Your task to perform on an android device: star an email in the gmail app Image 0: 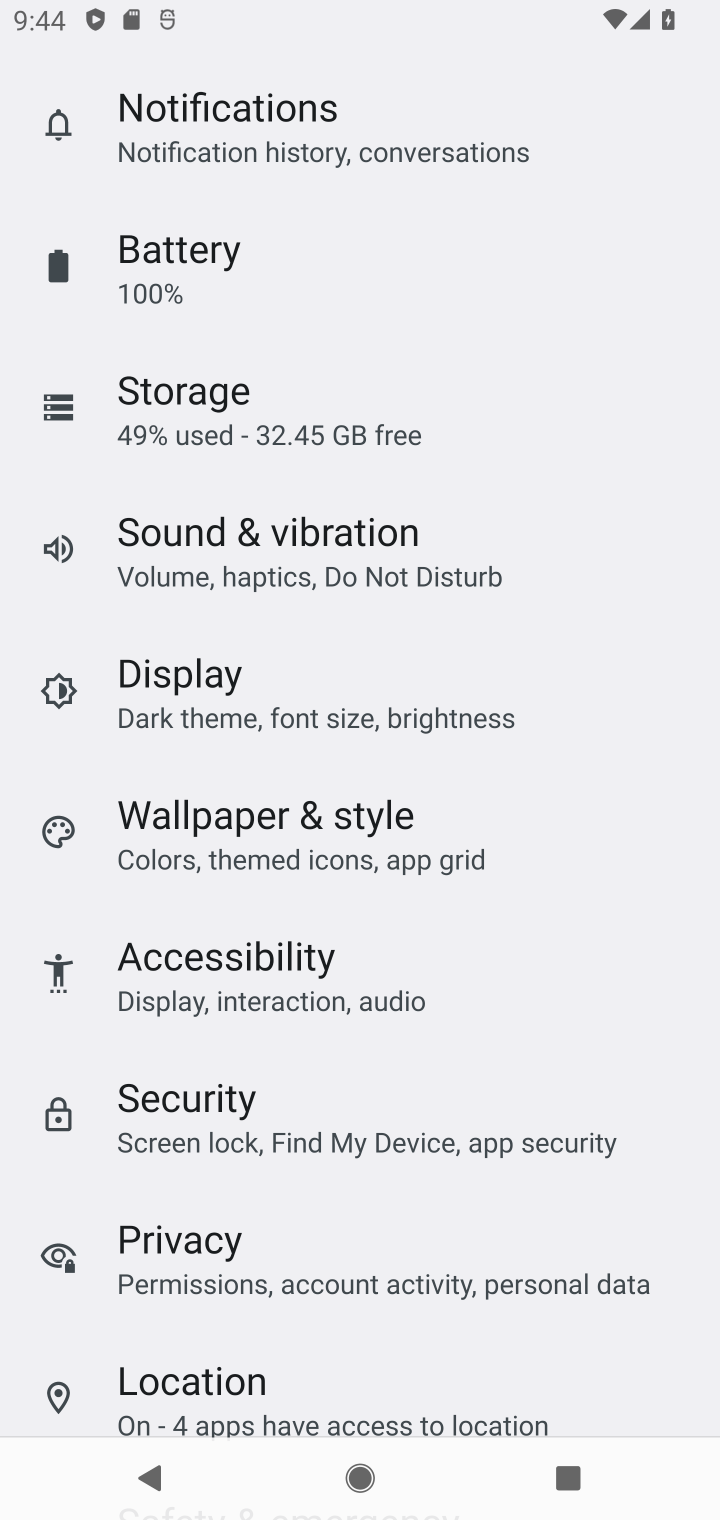
Step 0: press home button
Your task to perform on an android device: star an email in the gmail app Image 1: 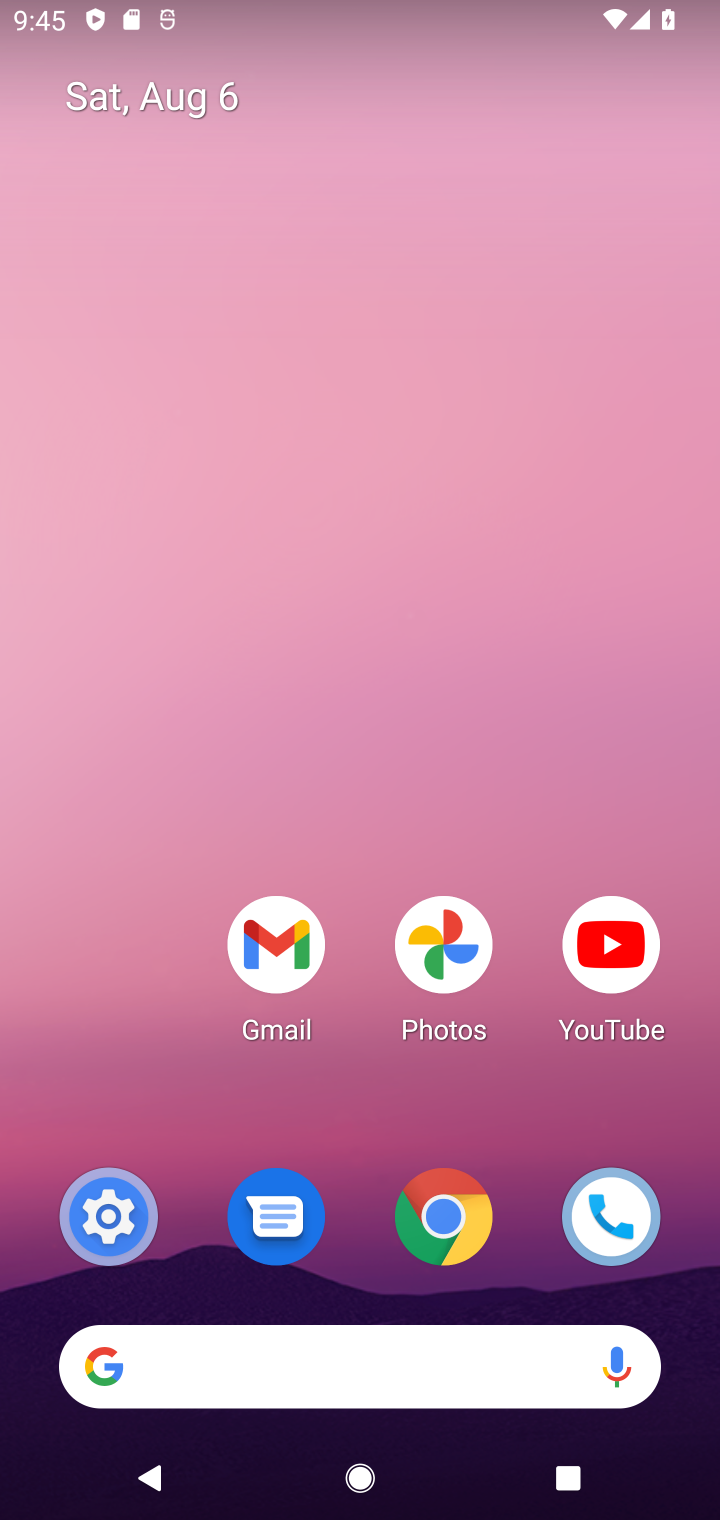
Step 1: click (263, 960)
Your task to perform on an android device: star an email in the gmail app Image 2: 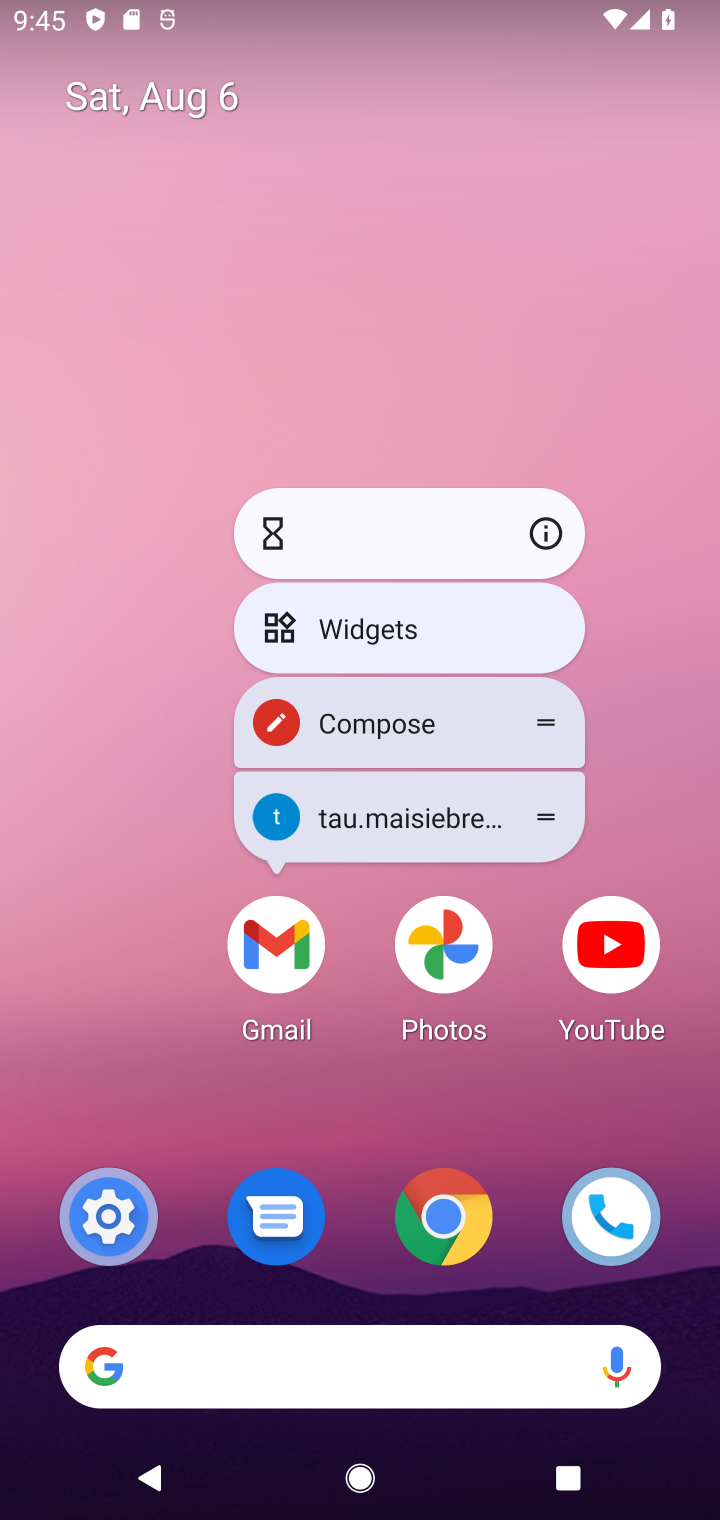
Step 2: click (256, 968)
Your task to perform on an android device: star an email in the gmail app Image 3: 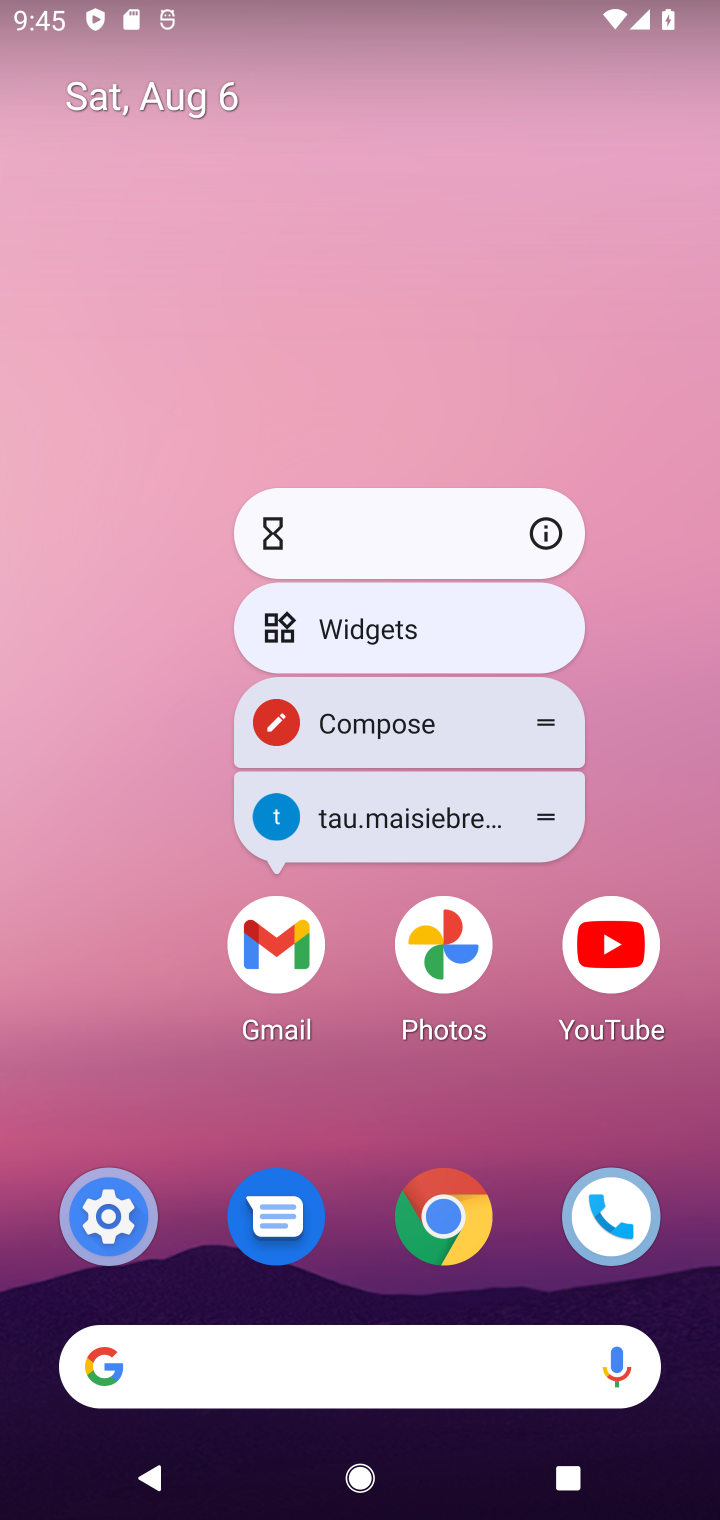
Step 3: click (301, 928)
Your task to perform on an android device: star an email in the gmail app Image 4: 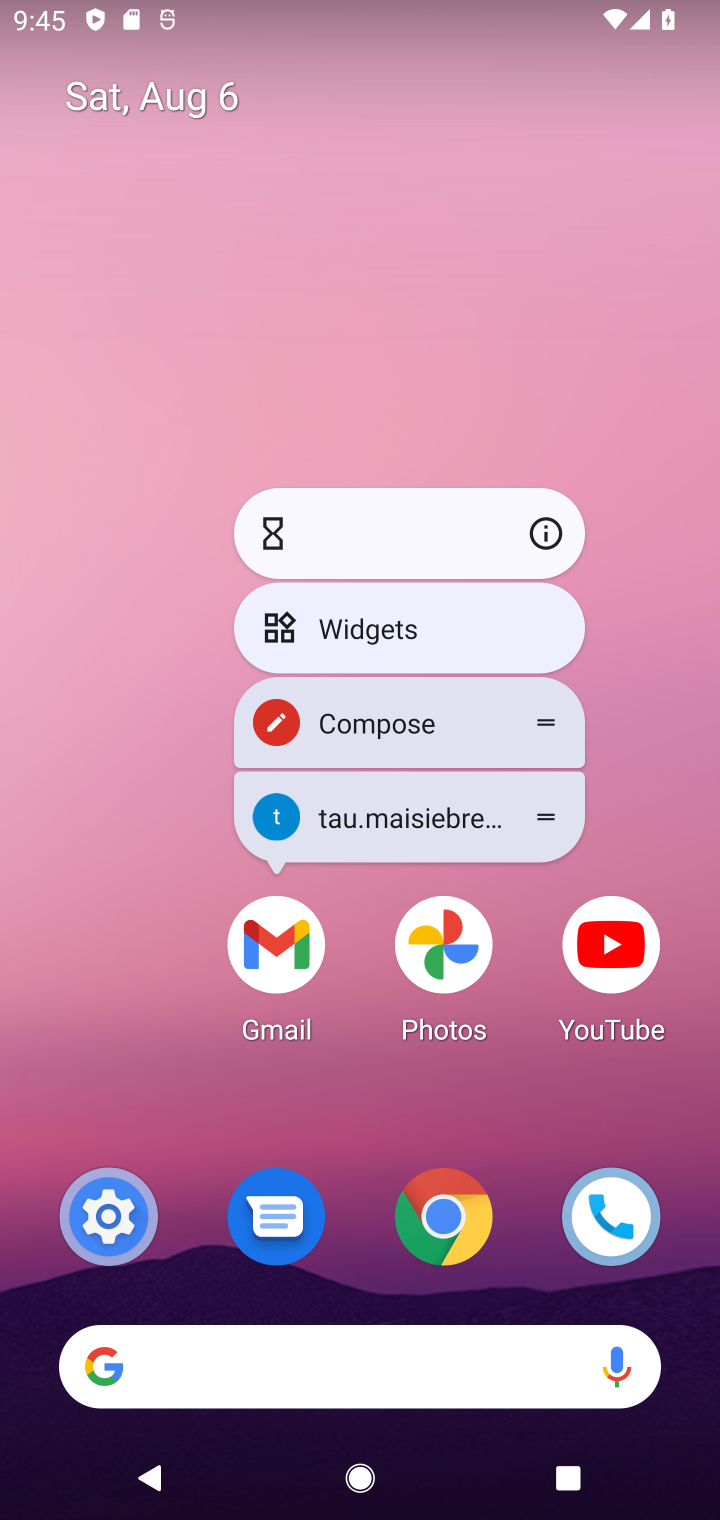
Step 4: click (302, 990)
Your task to perform on an android device: star an email in the gmail app Image 5: 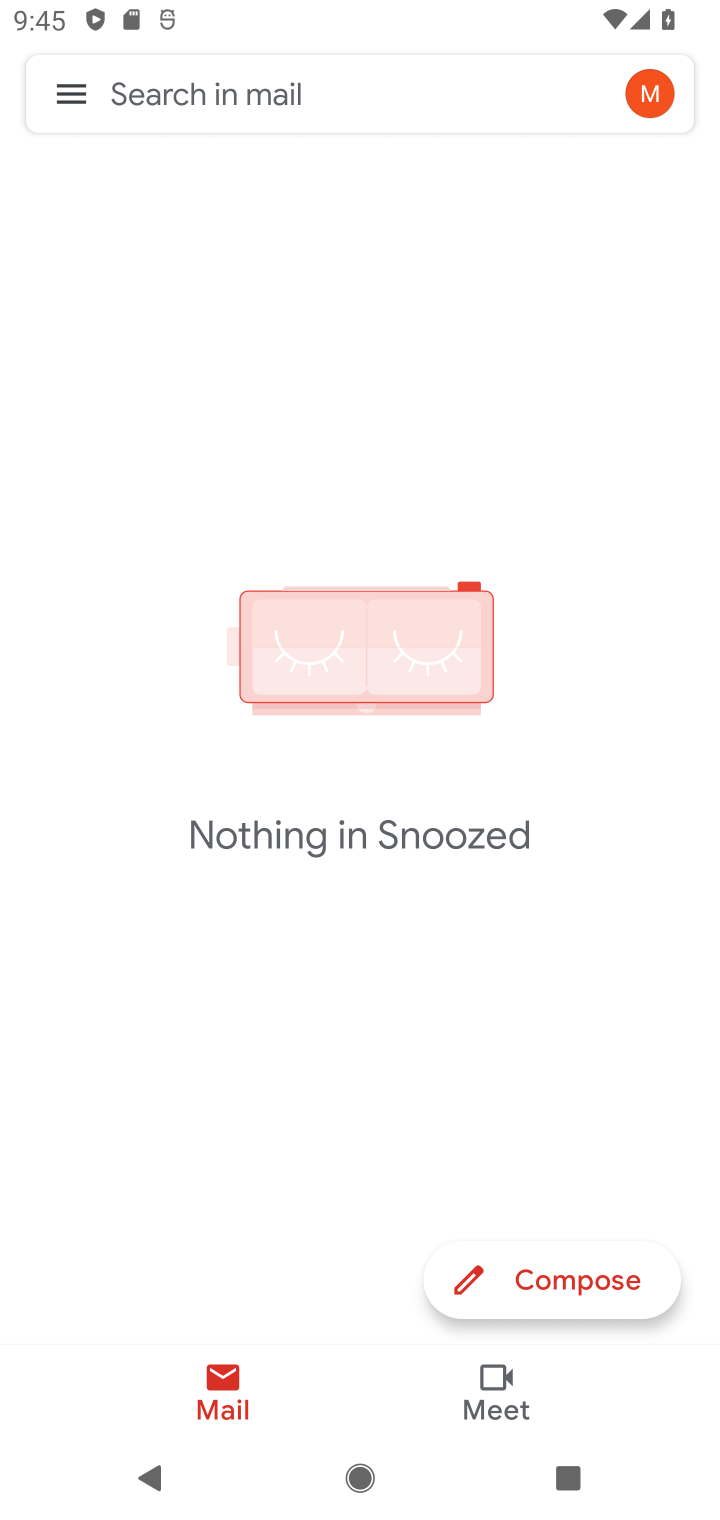
Step 5: click (65, 90)
Your task to perform on an android device: star an email in the gmail app Image 6: 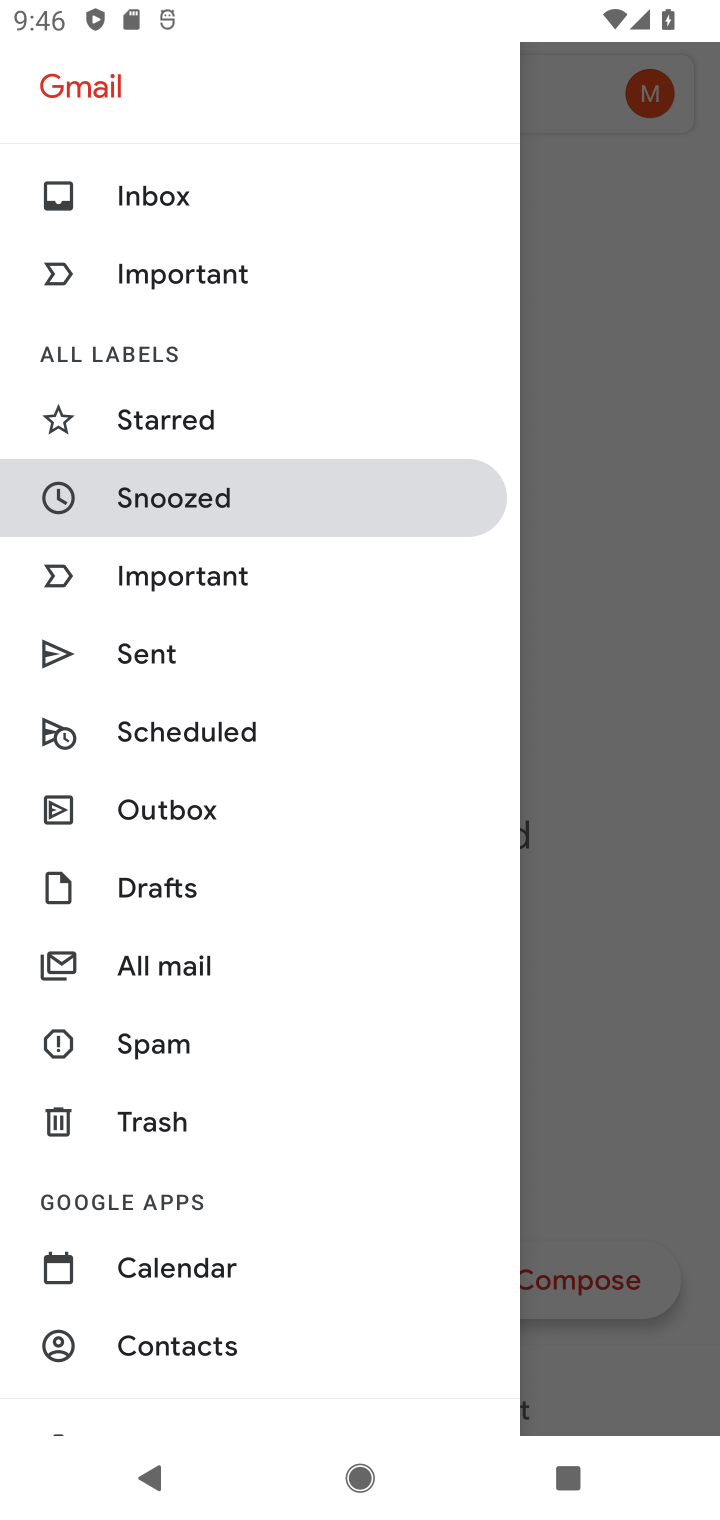
Step 6: click (606, 821)
Your task to perform on an android device: star an email in the gmail app Image 7: 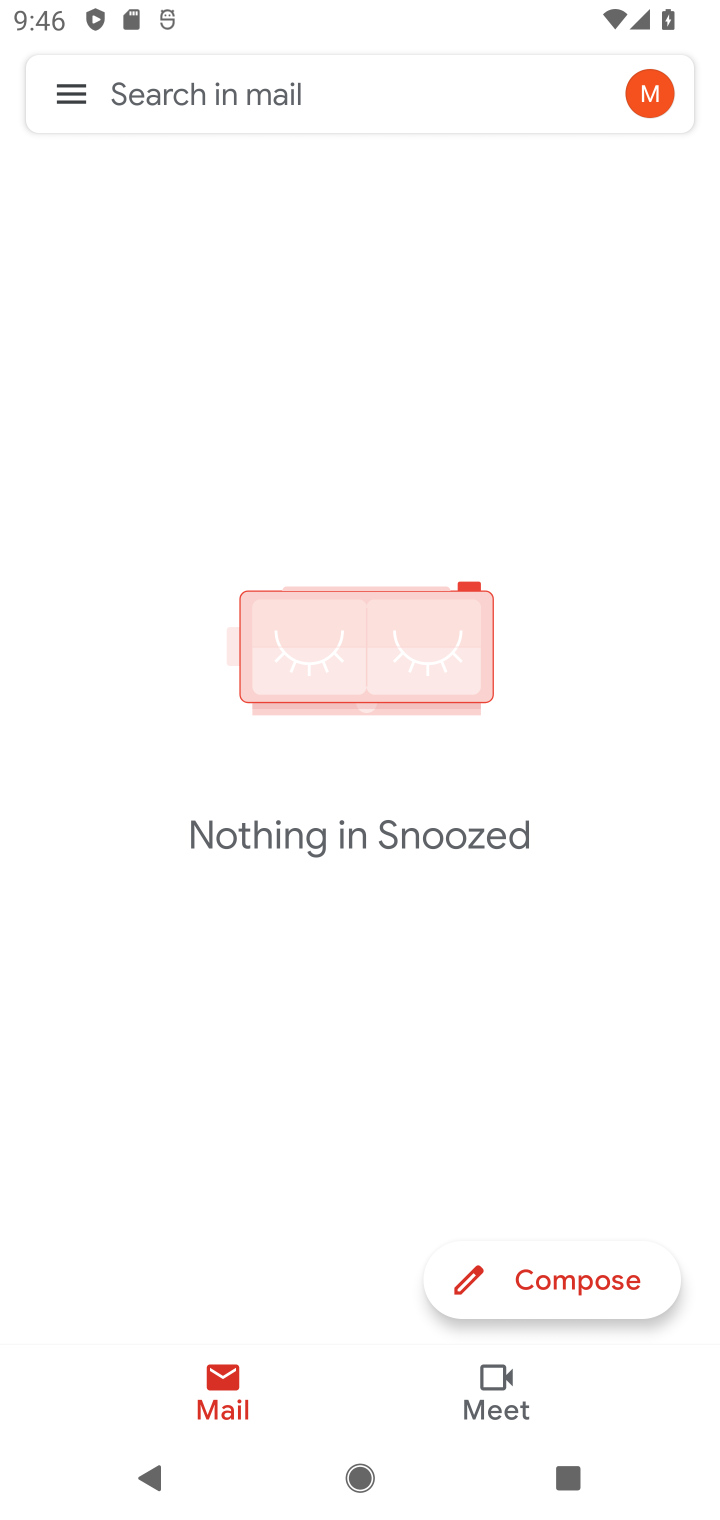
Step 7: click (60, 100)
Your task to perform on an android device: star an email in the gmail app Image 8: 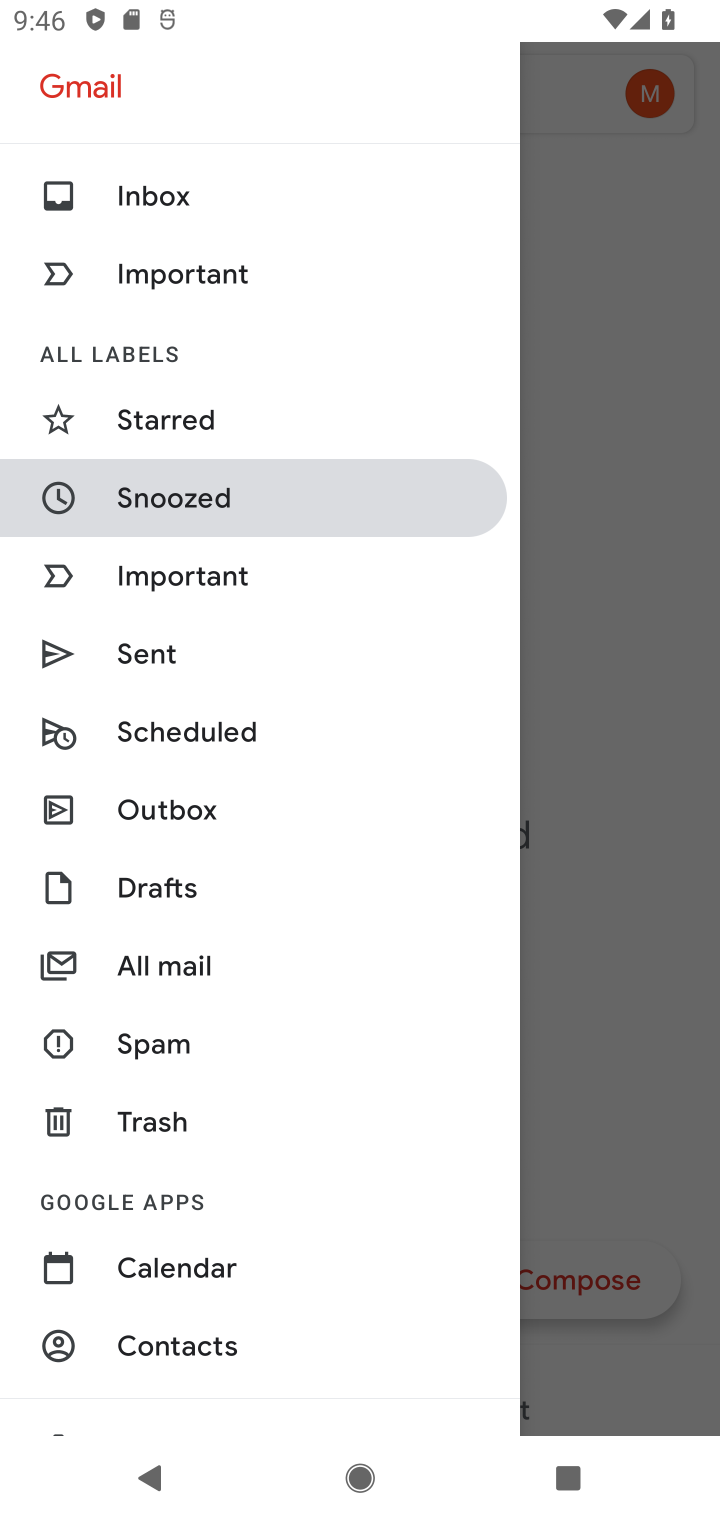
Step 8: click (167, 194)
Your task to perform on an android device: star an email in the gmail app Image 9: 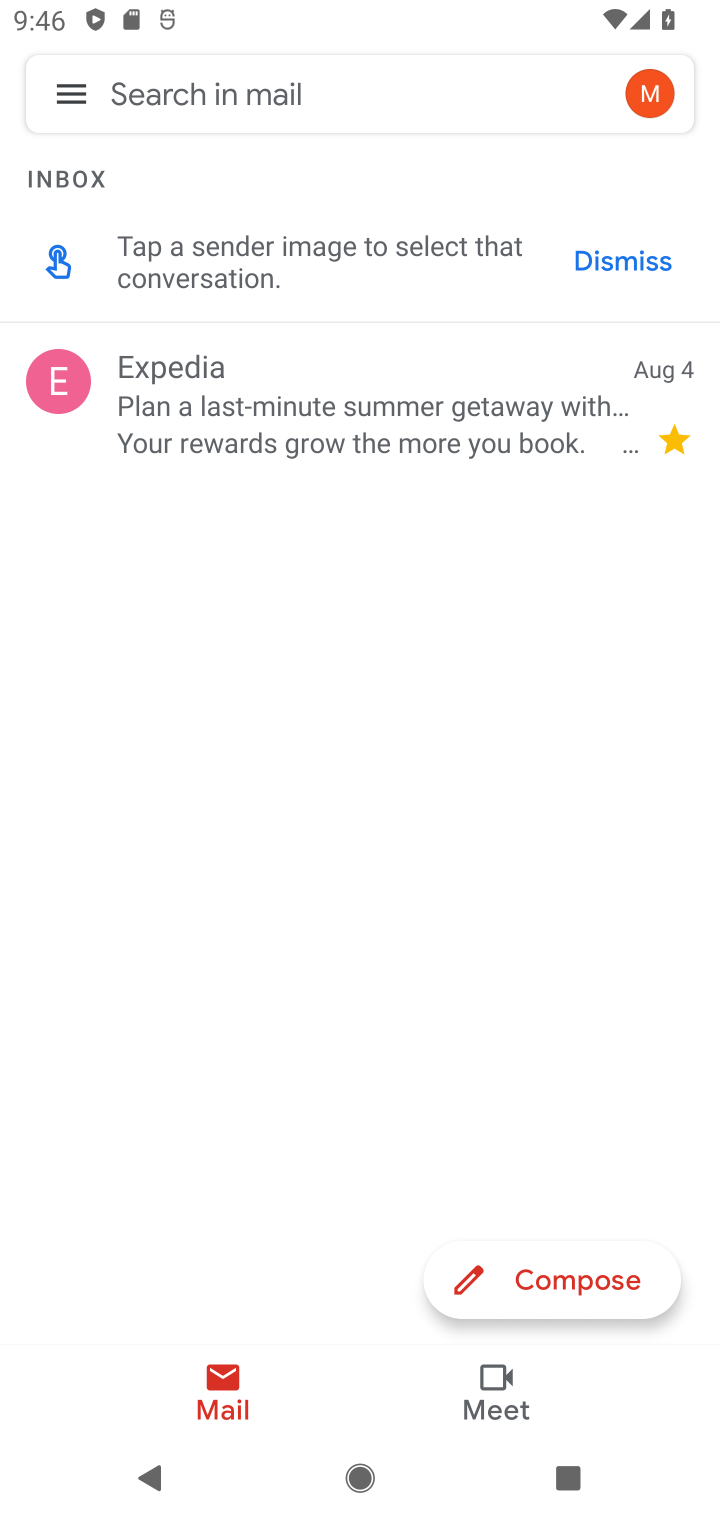
Step 9: task complete